Your task to perform on an android device: turn on javascript in the chrome app Image 0: 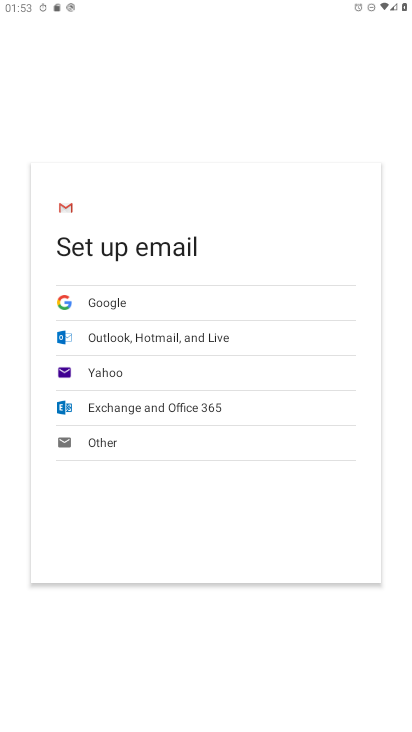
Step 0: press home button
Your task to perform on an android device: turn on javascript in the chrome app Image 1: 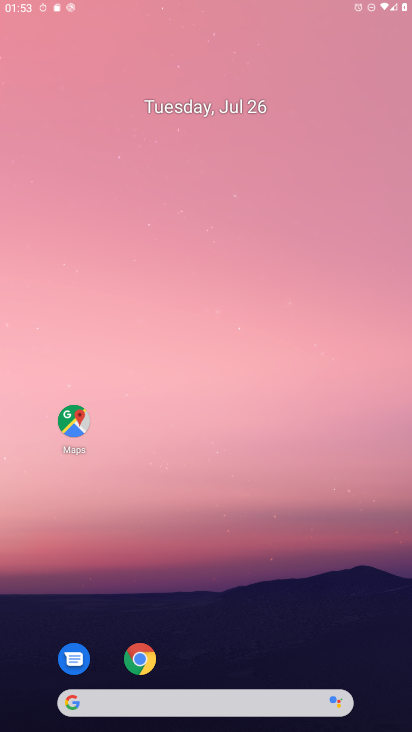
Step 1: drag from (244, 600) to (244, 111)
Your task to perform on an android device: turn on javascript in the chrome app Image 2: 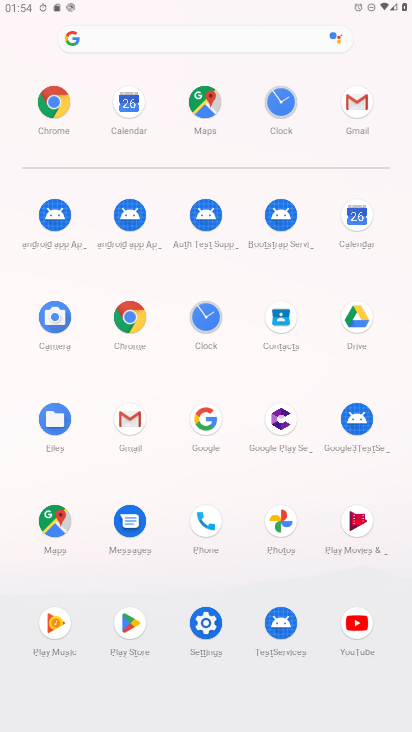
Step 2: click (59, 103)
Your task to perform on an android device: turn on javascript in the chrome app Image 3: 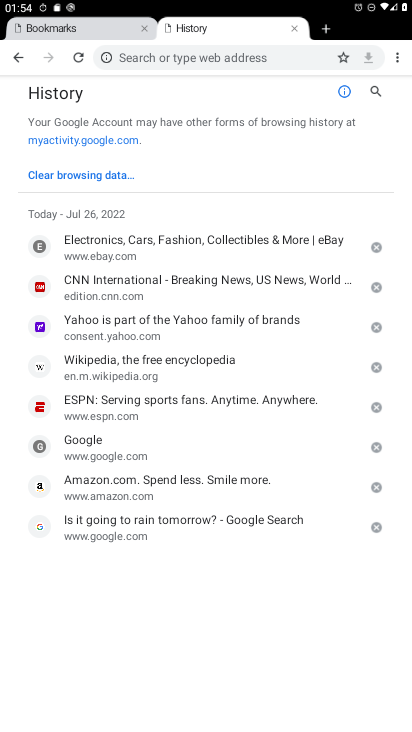
Step 3: drag from (402, 53) to (271, 299)
Your task to perform on an android device: turn on javascript in the chrome app Image 4: 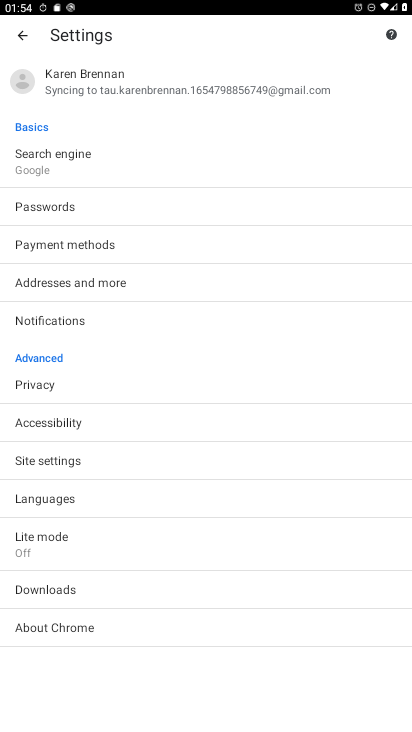
Step 4: click (107, 457)
Your task to perform on an android device: turn on javascript in the chrome app Image 5: 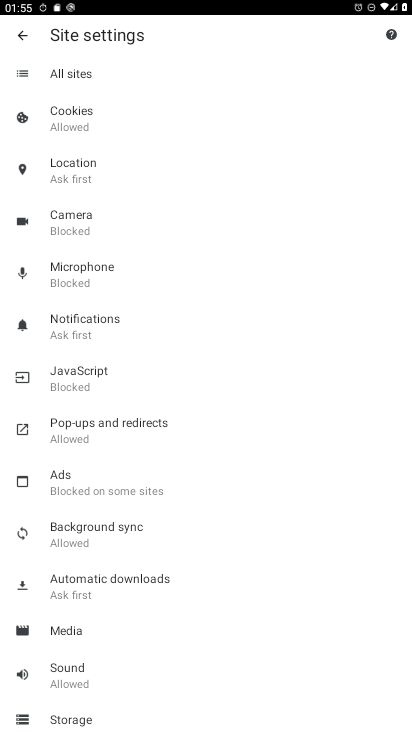
Step 5: click (45, 383)
Your task to perform on an android device: turn on javascript in the chrome app Image 6: 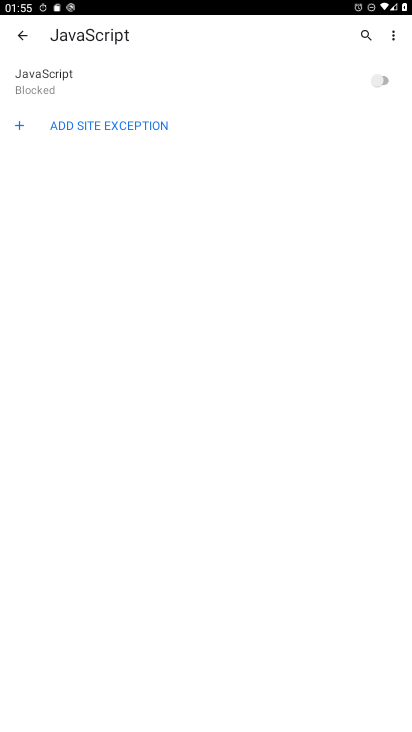
Step 6: click (356, 80)
Your task to perform on an android device: turn on javascript in the chrome app Image 7: 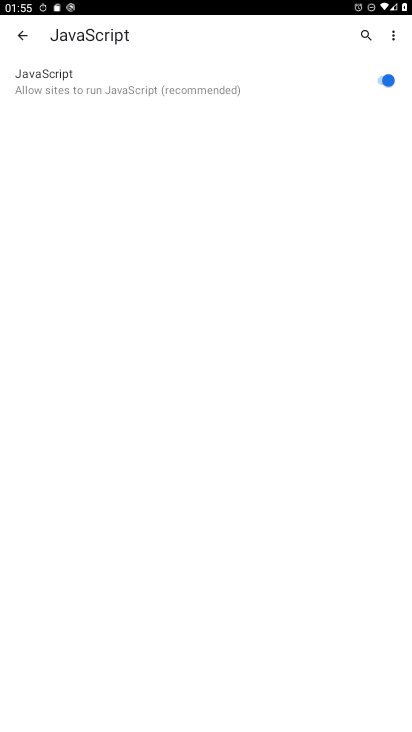
Step 7: task complete